Your task to perform on an android device: Go to display settings Image 0: 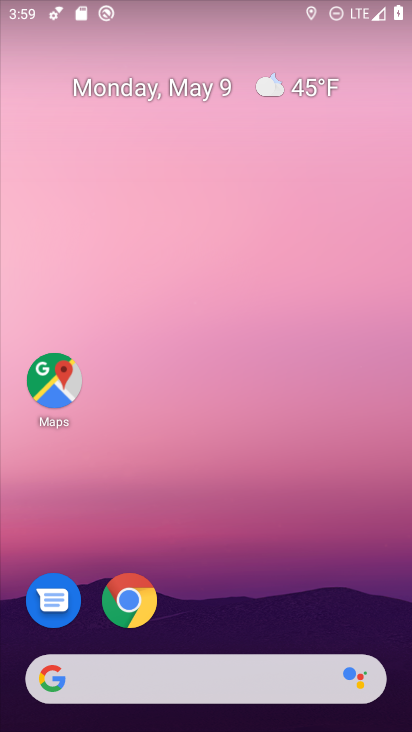
Step 0: drag from (208, 601) to (315, 104)
Your task to perform on an android device: Go to display settings Image 1: 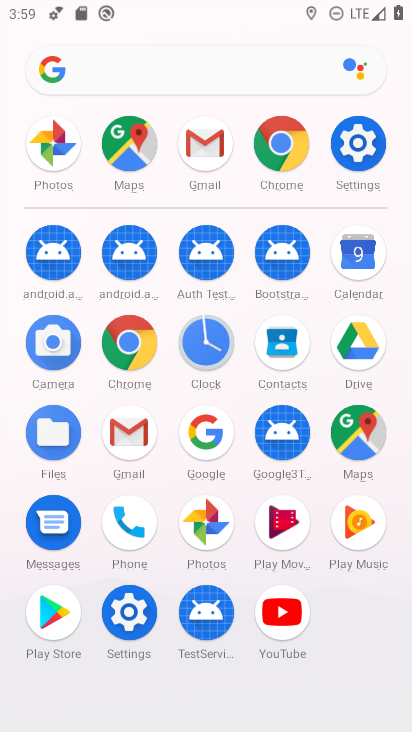
Step 1: click (355, 157)
Your task to perform on an android device: Go to display settings Image 2: 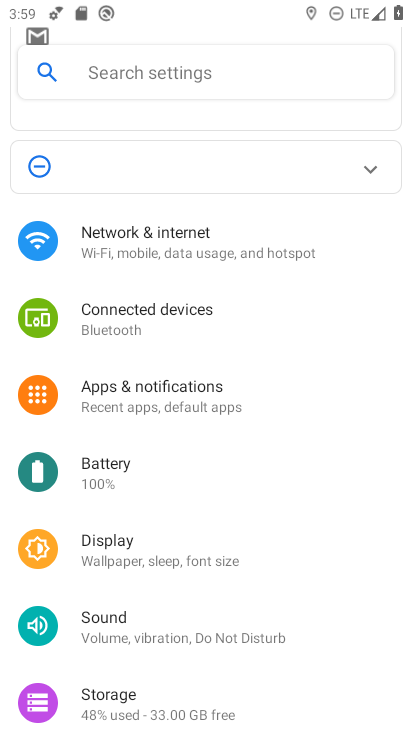
Step 2: click (148, 551)
Your task to perform on an android device: Go to display settings Image 3: 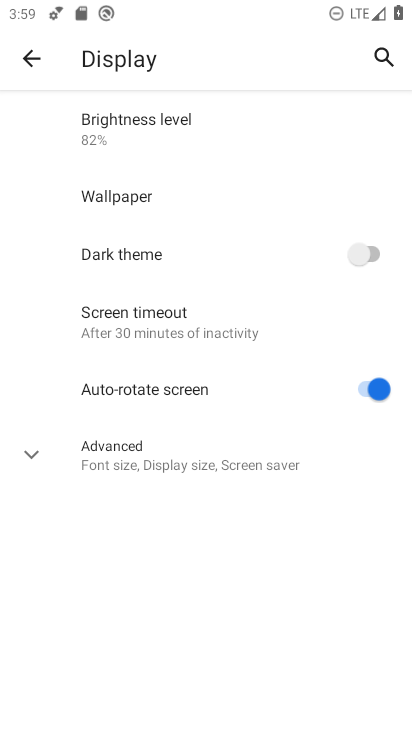
Step 3: task complete